Your task to perform on an android device: Open Google Chrome and click the shortcut for Amazon.com Image 0: 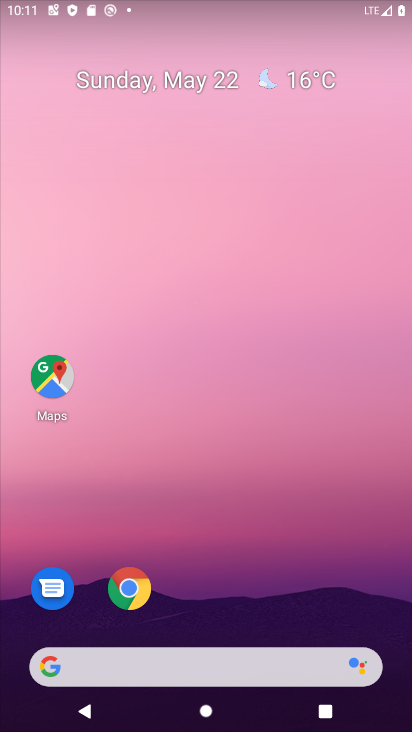
Step 0: click (140, 595)
Your task to perform on an android device: Open Google Chrome and click the shortcut for Amazon.com Image 1: 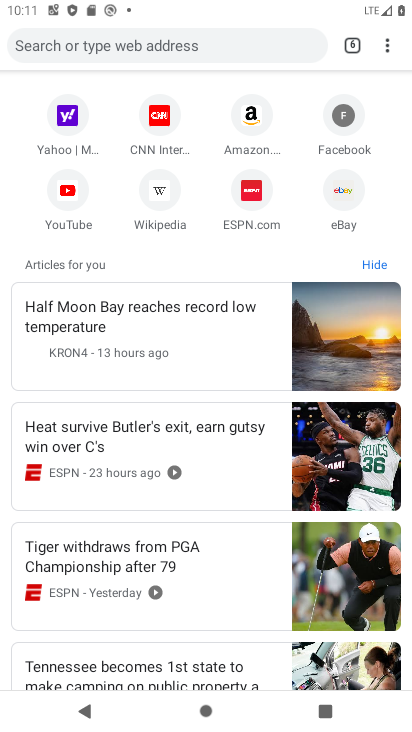
Step 1: click (236, 129)
Your task to perform on an android device: Open Google Chrome and click the shortcut for Amazon.com Image 2: 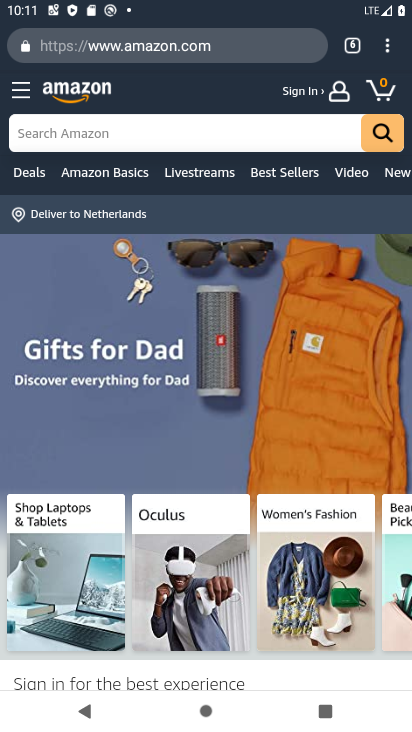
Step 2: task complete